Your task to perform on an android device: Go to sound settings Image 0: 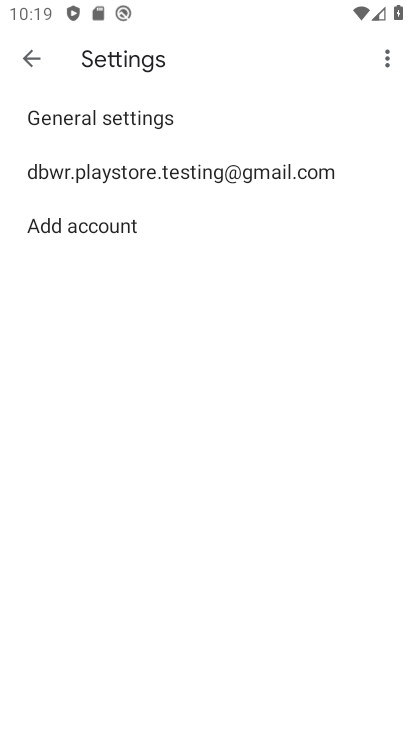
Step 0: drag from (266, 506) to (126, 77)
Your task to perform on an android device: Go to sound settings Image 1: 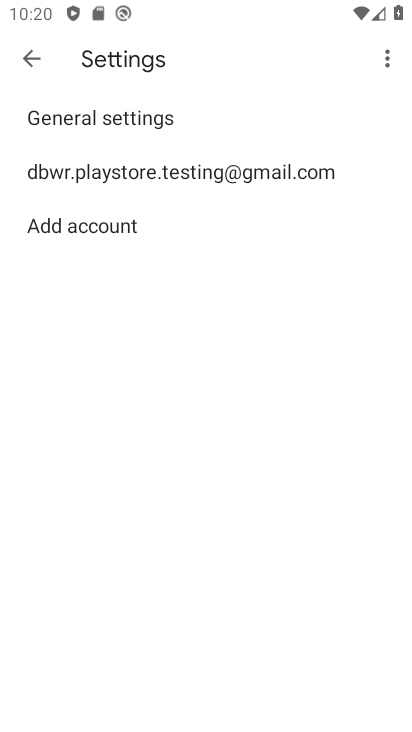
Step 1: press home button
Your task to perform on an android device: Go to sound settings Image 2: 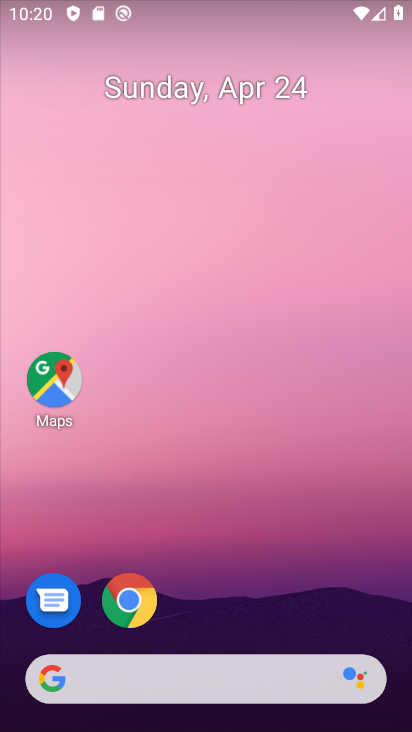
Step 2: drag from (247, 571) to (173, 179)
Your task to perform on an android device: Go to sound settings Image 3: 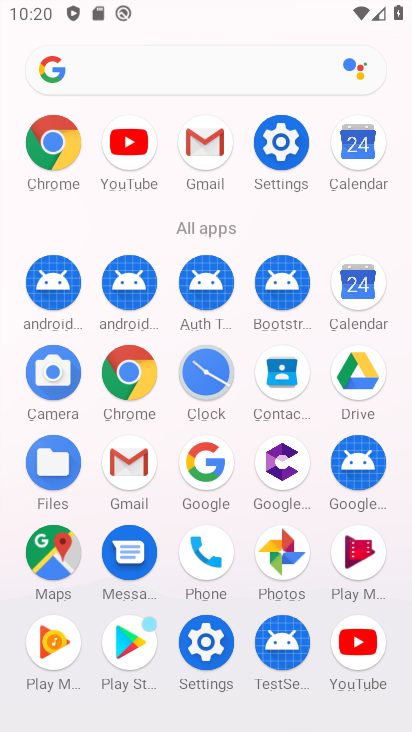
Step 3: click (277, 148)
Your task to perform on an android device: Go to sound settings Image 4: 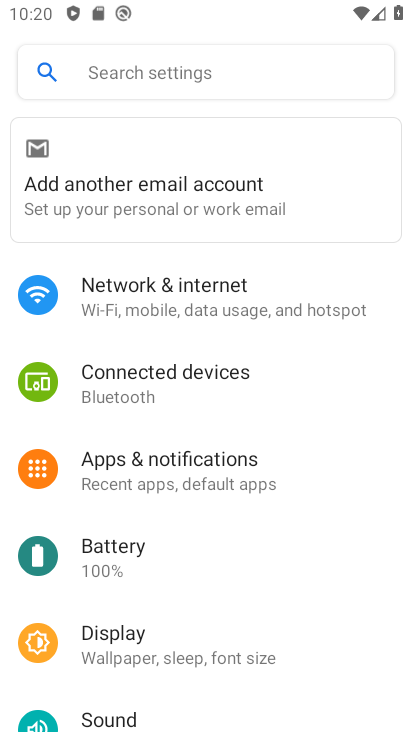
Step 4: drag from (290, 498) to (238, 9)
Your task to perform on an android device: Go to sound settings Image 5: 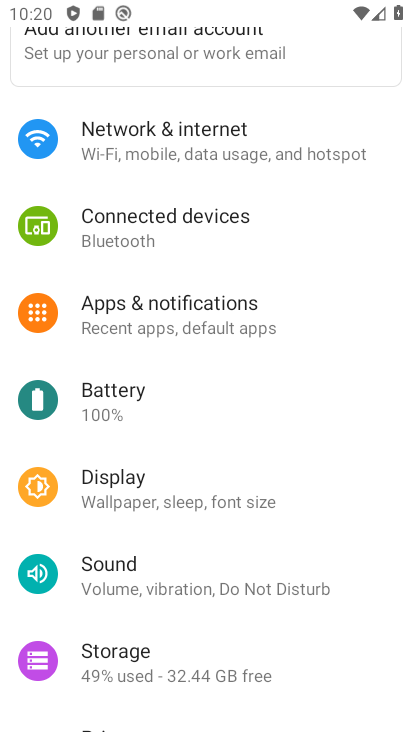
Step 5: click (114, 567)
Your task to perform on an android device: Go to sound settings Image 6: 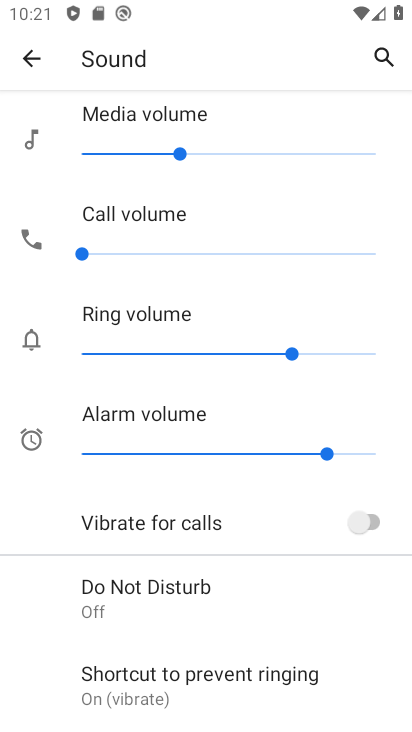
Step 6: task complete